Your task to perform on an android device: Do I have any events tomorrow? Image 0: 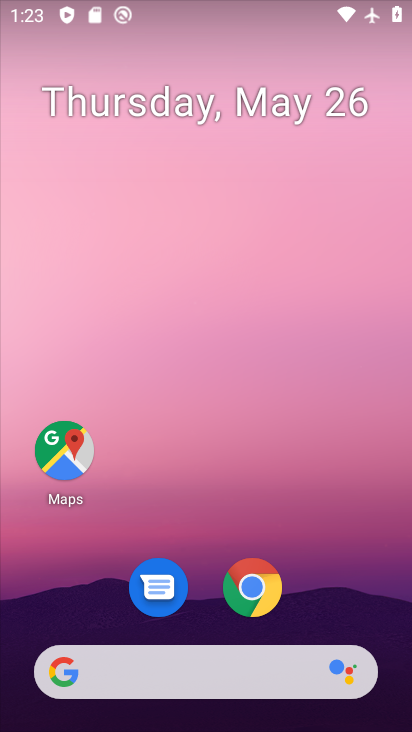
Step 0: drag from (302, 596) to (214, 84)
Your task to perform on an android device: Do I have any events tomorrow? Image 1: 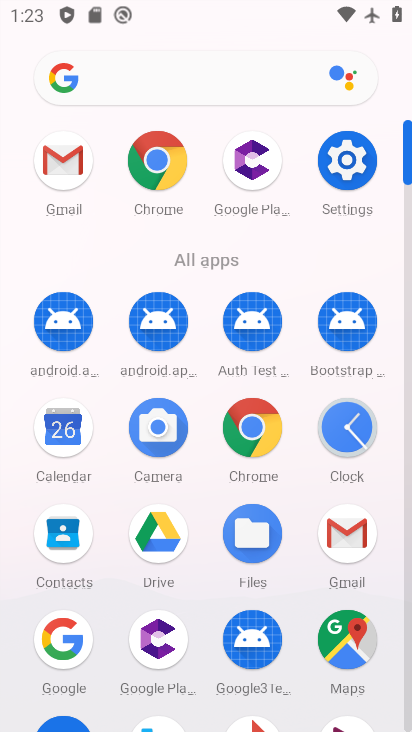
Step 1: drag from (15, 616) to (11, 288)
Your task to perform on an android device: Do I have any events tomorrow? Image 2: 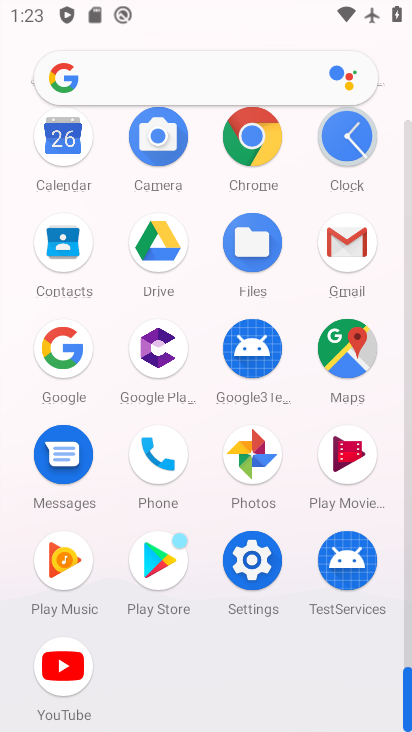
Step 2: click (63, 129)
Your task to perform on an android device: Do I have any events tomorrow? Image 3: 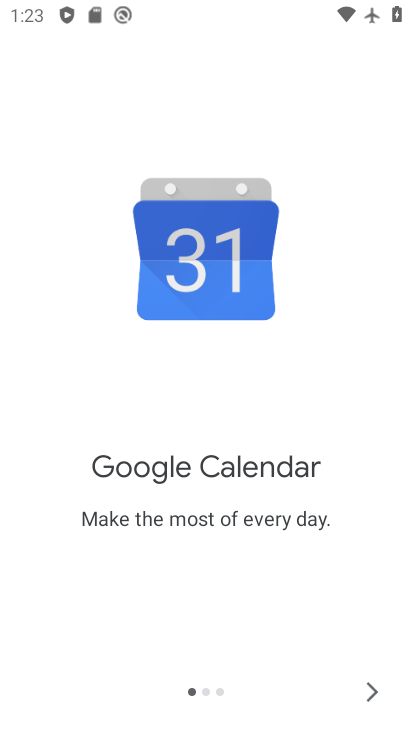
Step 3: click (368, 691)
Your task to perform on an android device: Do I have any events tomorrow? Image 4: 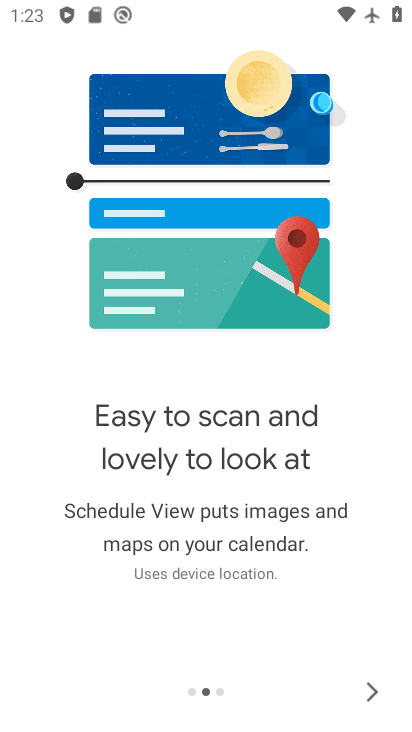
Step 4: click (368, 691)
Your task to perform on an android device: Do I have any events tomorrow? Image 5: 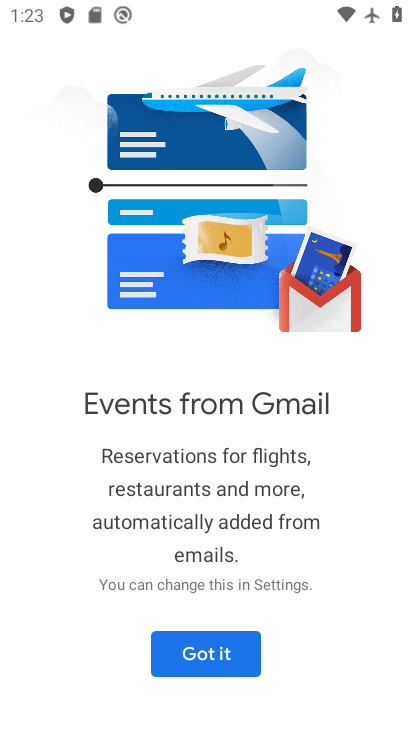
Step 5: click (213, 663)
Your task to perform on an android device: Do I have any events tomorrow? Image 6: 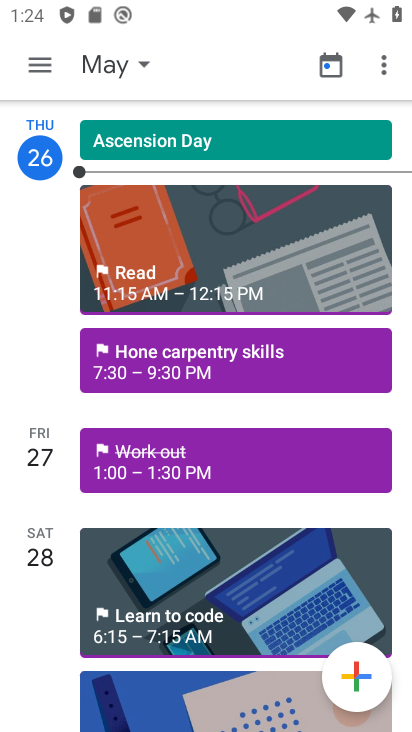
Step 6: click (117, 61)
Your task to perform on an android device: Do I have any events tomorrow? Image 7: 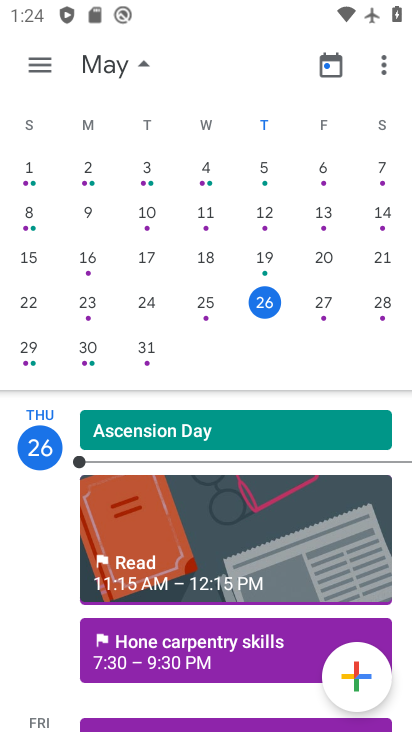
Step 7: click (320, 306)
Your task to perform on an android device: Do I have any events tomorrow? Image 8: 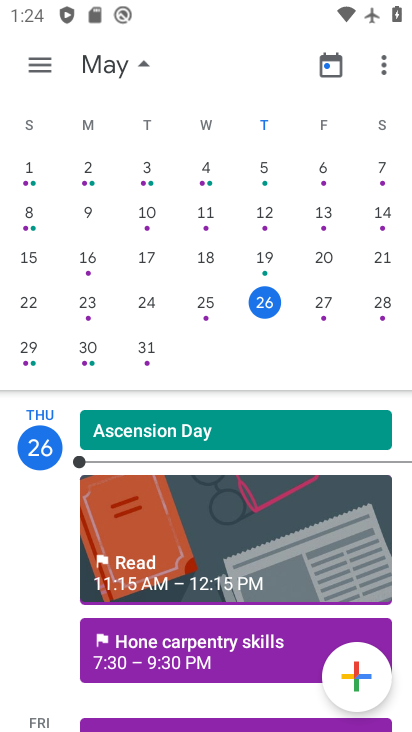
Step 8: click (321, 303)
Your task to perform on an android device: Do I have any events tomorrow? Image 9: 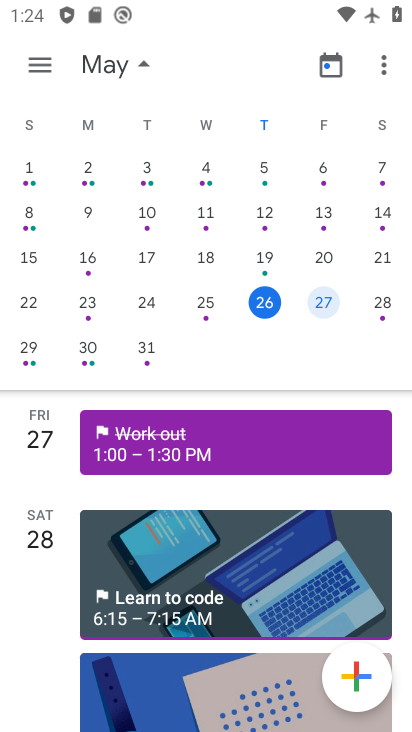
Step 9: click (34, 70)
Your task to perform on an android device: Do I have any events tomorrow? Image 10: 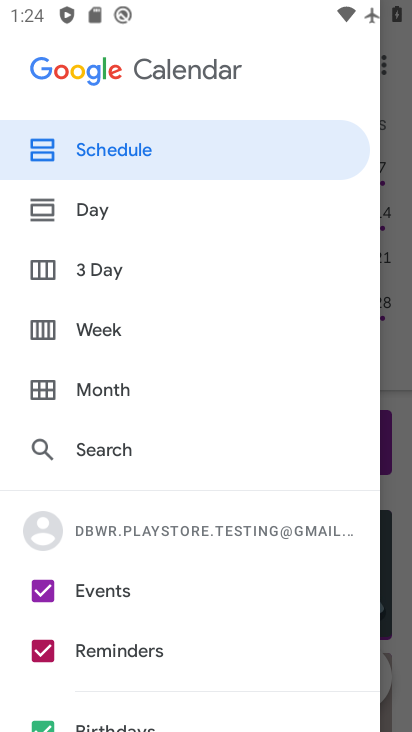
Step 10: click (113, 208)
Your task to perform on an android device: Do I have any events tomorrow? Image 11: 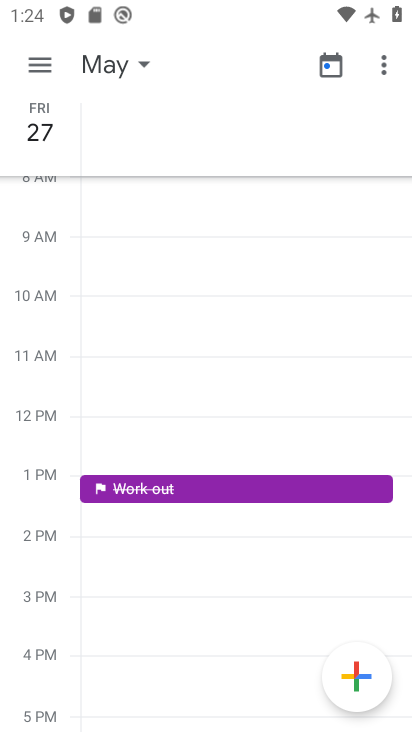
Step 11: task complete